Your task to perform on an android device: turn off sleep mode Image 0: 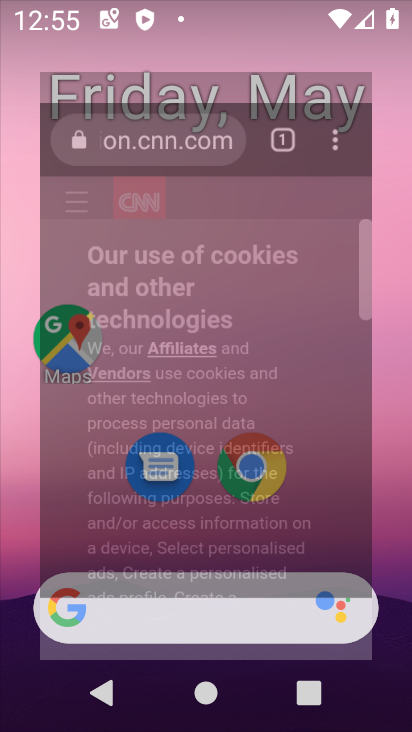
Step 0: drag from (325, 360) to (320, 29)
Your task to perform on an android device: turn off sleep mode Image 1: 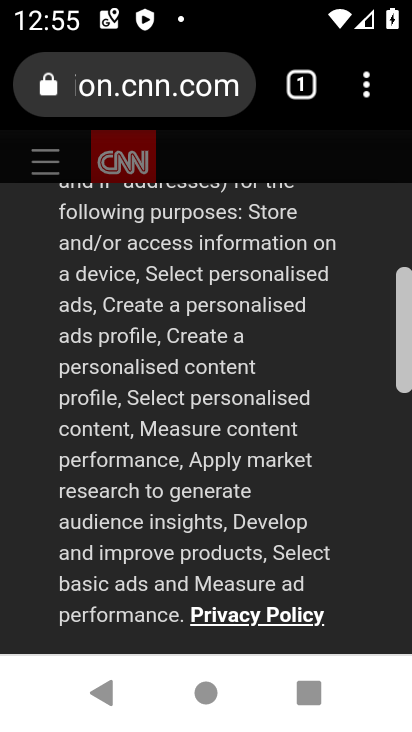
Step 1: press home button
Your task to perform on an android device: turn off sleep mode Image 2: 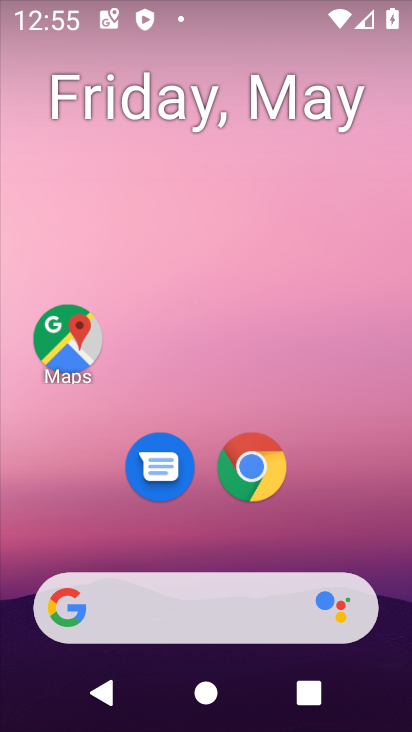
Step 2: drag from (258, 551) to (168, 124)
Your task to perform on an android device: turn off sleep mode Image 3: 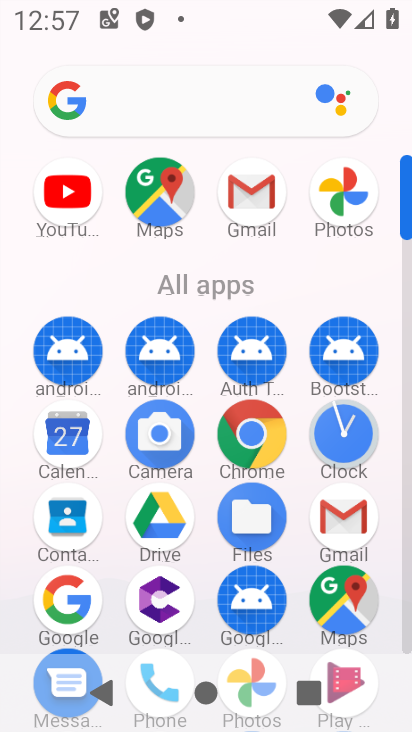
Step 3: click (400, 650)
Your task to perform on an android device: turn off sleep mode Image 4: 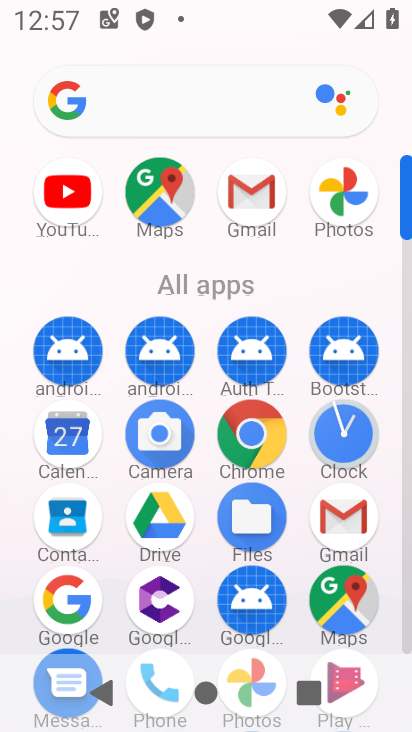
Step 4: click (405, 644)
Your task to perform on an android device: turn off sleep mode Image 5: 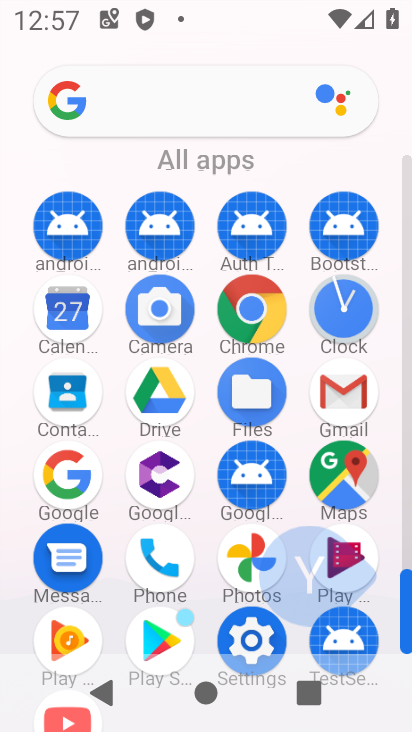
Step 5: click (405, 644)
Your task to perform on an android device: turn off sleep mode Image 6: 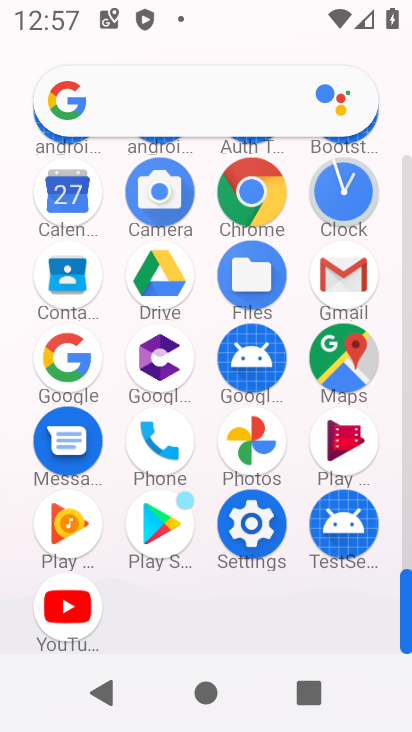
Step 6: click (405, 644)
Your task to perform on an android device: turn off sleep mode Image 7: 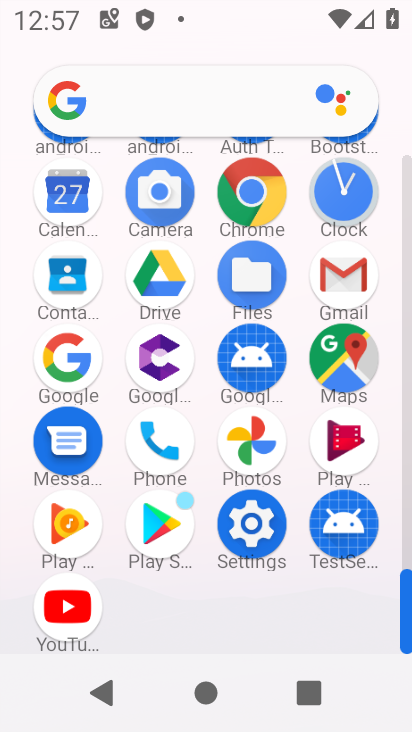
Step 7: click (248, 547)
Your task to perform on an android device: turn off sleep mode Image 8: 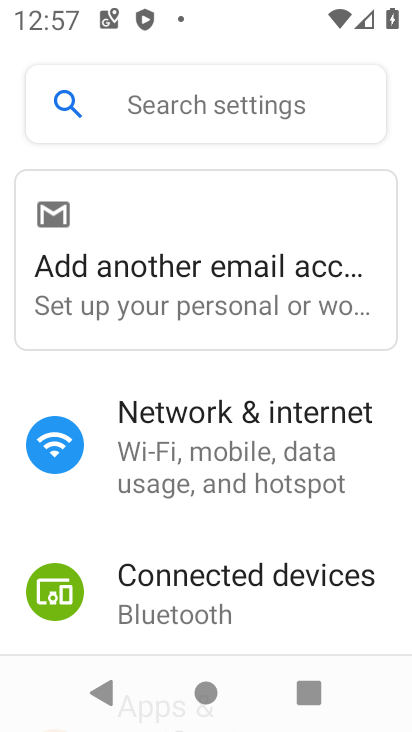
Step 8: drag from (248, 530) to (238, 68)
Your task to perform on an android device: turn off sleep mode Image 9: 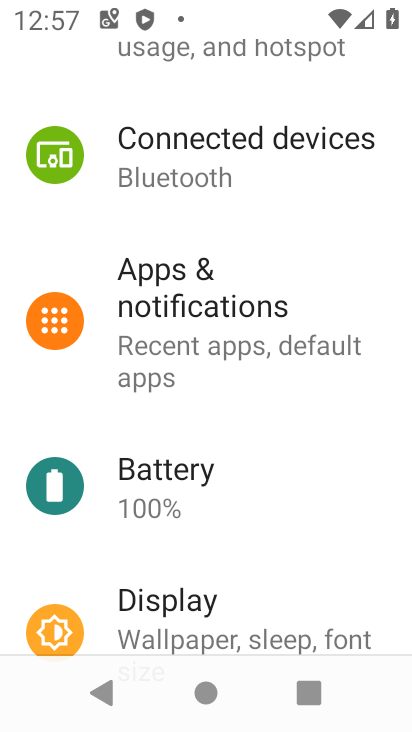
Step 9: click (186, 605)
Your task to perform on an android device: turn off sleep mode Image 10: 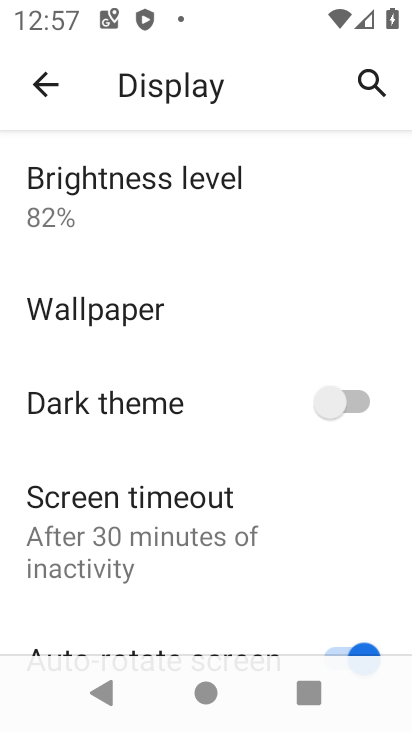
Step 10: task complete